Your task to perform on an android device: check out phone information Image 0: 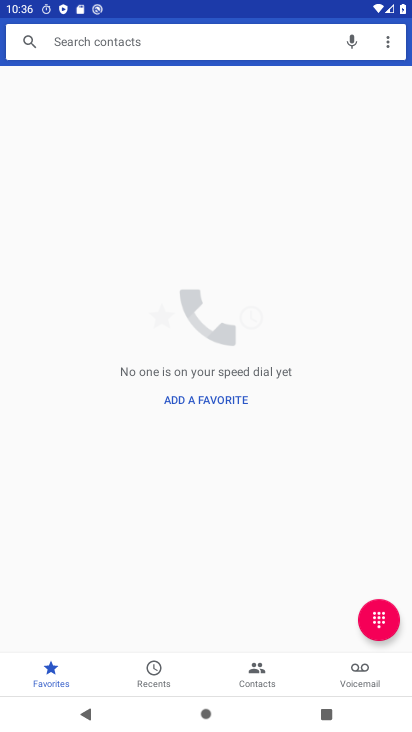
Step 0: press home button
Your task to perform on an android device: check out phone information Image 1: 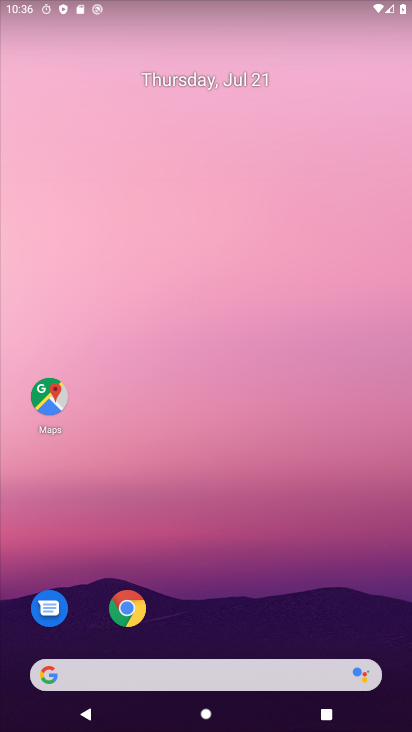
Step 1: drag from (184, 630) to (260, 34)
Your task to perform on an android device: check out phone information Image 2: 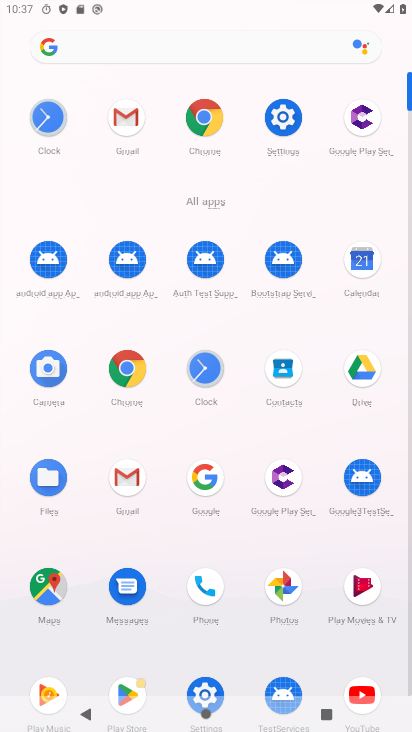
Step 2: click (272, 120)
Your task to perform on an android device: check out phone information Image 3: 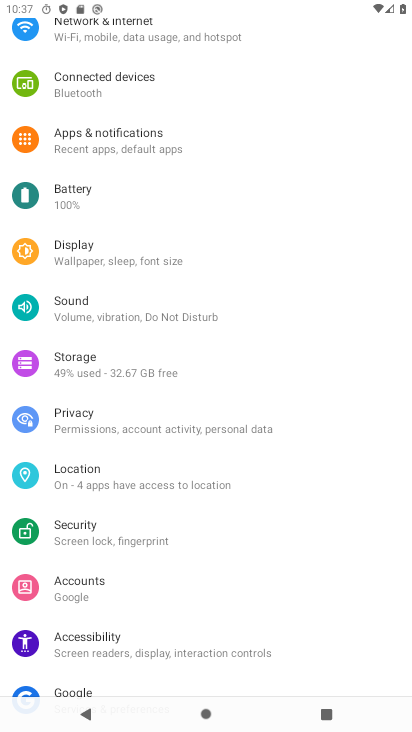
Step 3: drag from (136, 569) to (134, 476)
Your task to perform on an android device: check out phone information Image 4: 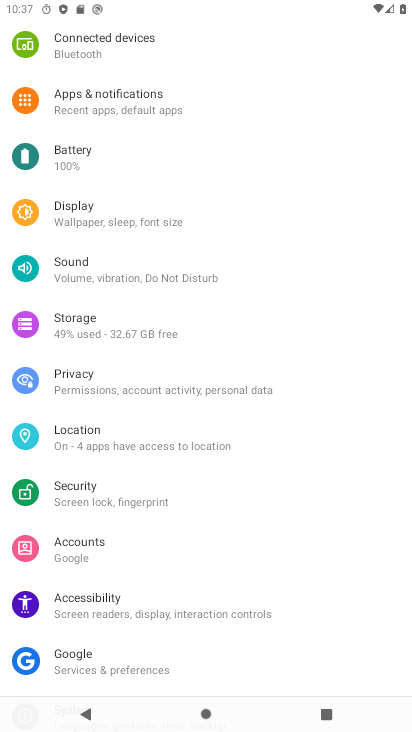
Step 4: drag from (121, 580) to (106, 347)
Your task to perform on an android device: check out phone information Image 5: 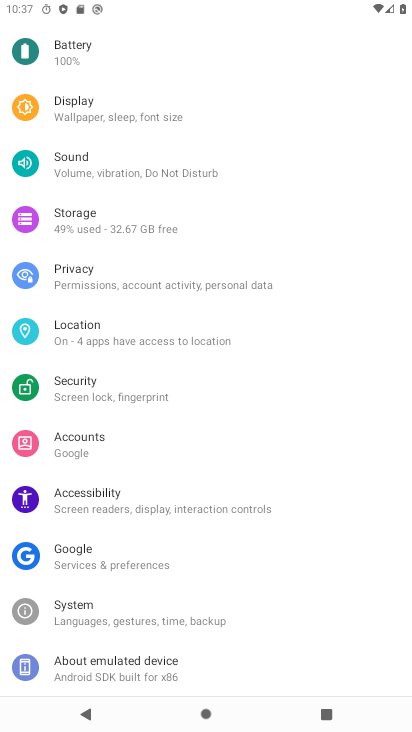
Step 5: click (95, 660)
Your task to perform on an android device: check out phone information Image 6: 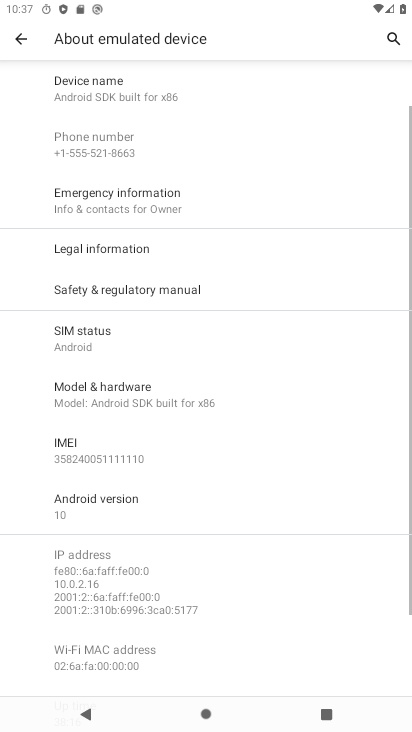
Step 6: task complete